Your task to perform on an android device: turn off smart reply in the gmail app Image 0: 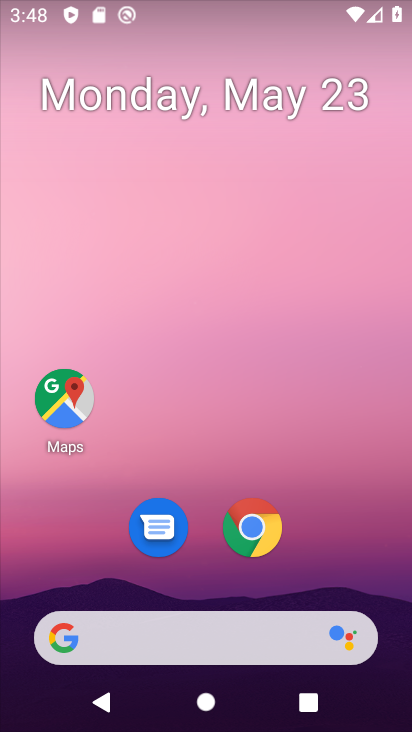
Step 0: press home button
Your task to perform on an android device: turn off smart reply in the gmail app Image 1: 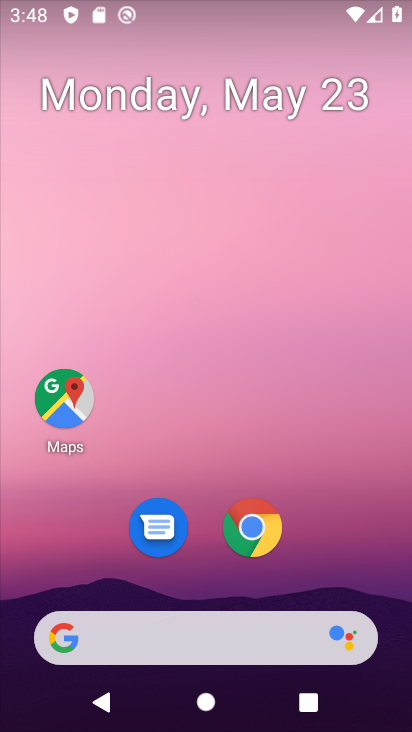
Step 1: drag from (334, 420) to (254, 169)
Your task to perform on an android device: turn off smart reply in the gmail app Image 2: 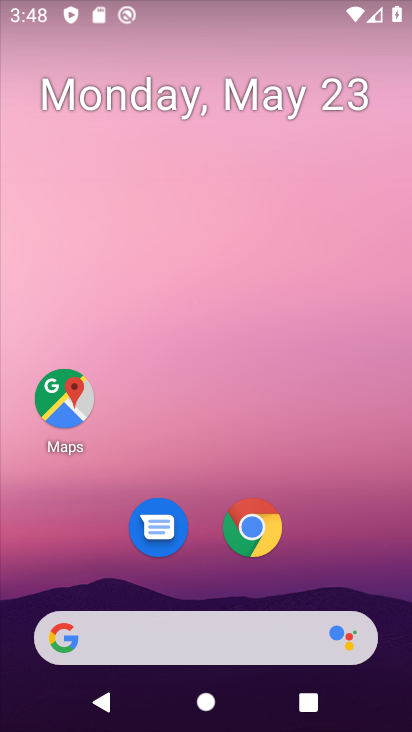
Step 2: drag from (354, 512) to (233, 136)
Your task to perform on an android device: turn off smart reply in the gmail app Image 3: 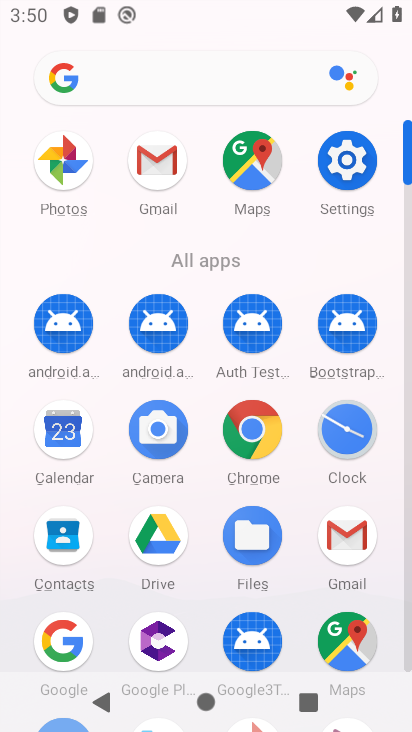
Step 3: click (162, 195)
Your task to perform on an android device: turn off smart reply in the gmail app Image 4: 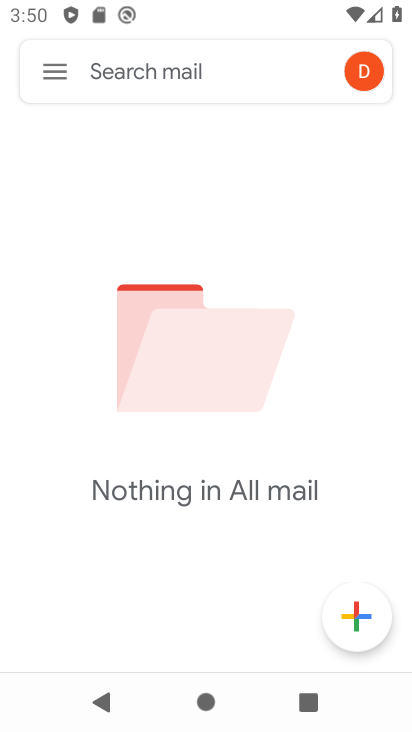
Step 4: click (71, 72)
Your task to perform on an android device: turn off smart reply in the gmail app Image 5: 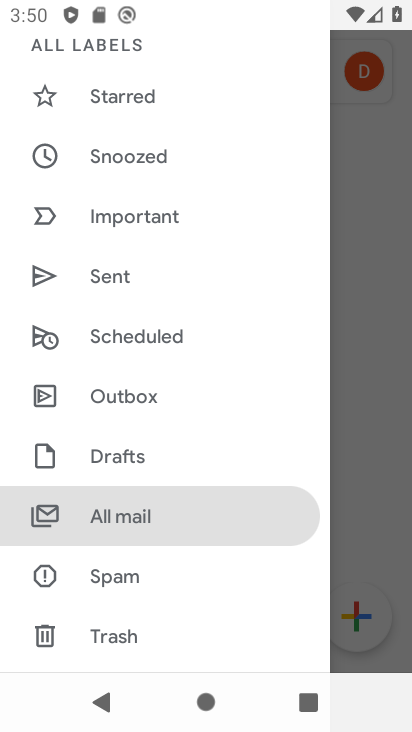
Step 5: drag from (134, 615) to (120, 228)
Your task to perform on an android device: turn off smart reply in the gmail app Image 6: 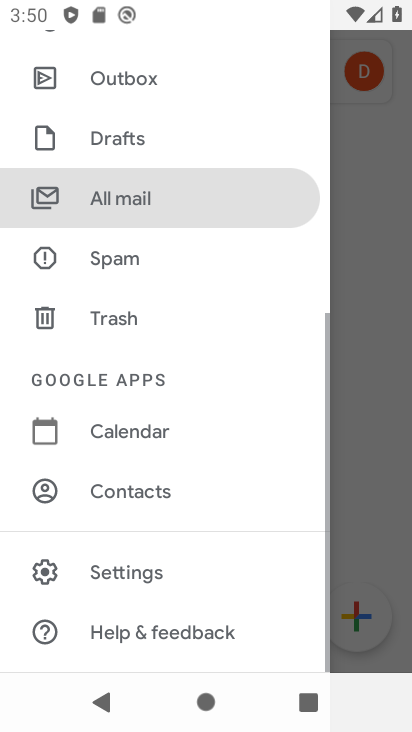
Step 6: click (159, 578)
Your task to perform on an android device: turn off smart reply in the gmail app Image 7: 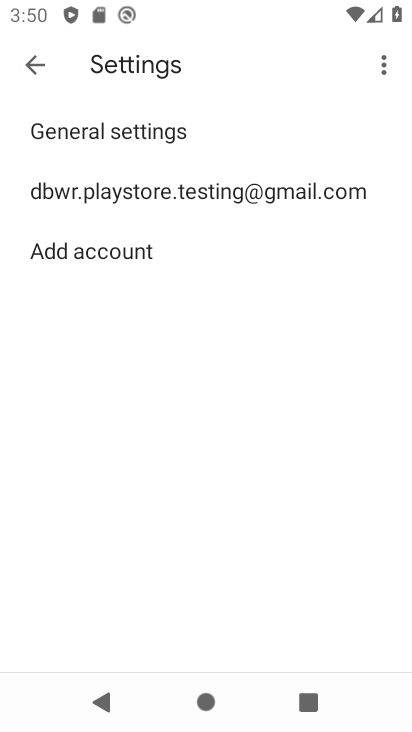
Step 7: click (316, 196)
Your task to perform on an android device: turn off smart reply in the gmail app Image 8: 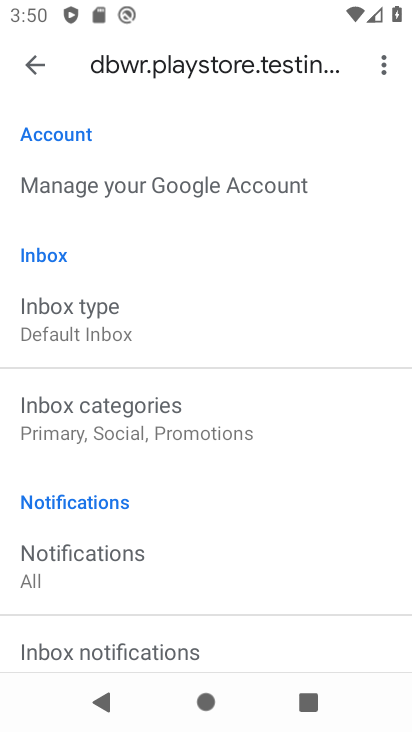
Step 8: drag from (252, 502) to (155, 162)
Your task to perform on an android device: turn off smart reply in the gmail app Image 9: 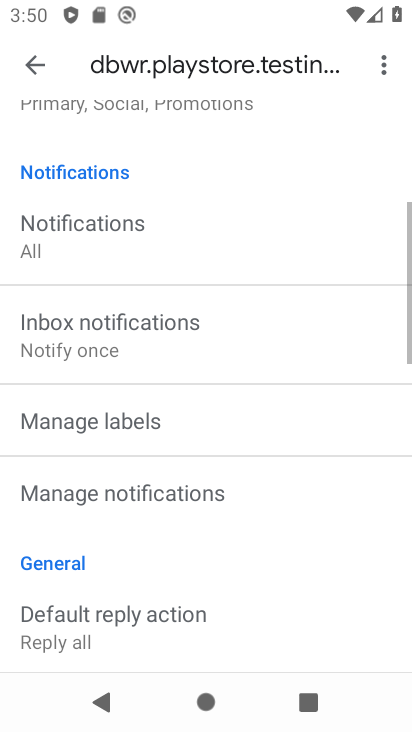
Step 9: drag from (226, 560) to (166, 262)
Your task to perform on an android device: turn off smart reply in the gmail app Image 10: 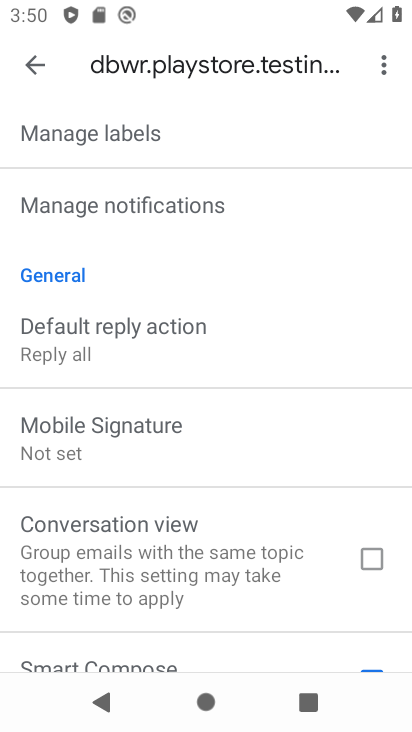
Step 10: drag from (303, 587) to (264, 235)
Your task to perform on an android device: turn off smart reply in the gmail app Image 11: 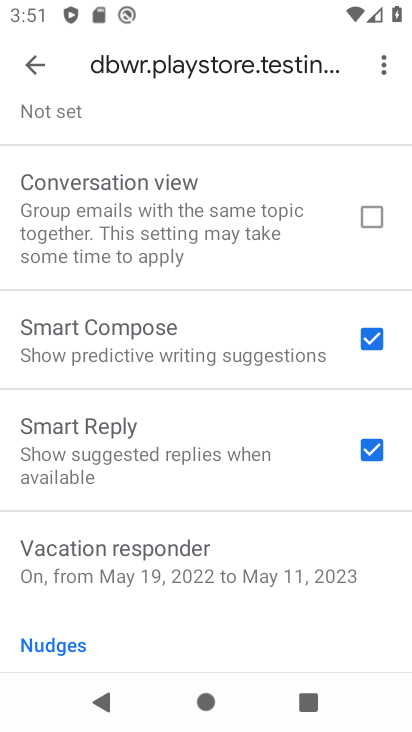
Step 11: click (195, 438)
Your task to perform on an android device: turn off smart reply in the gmail app Image 12: 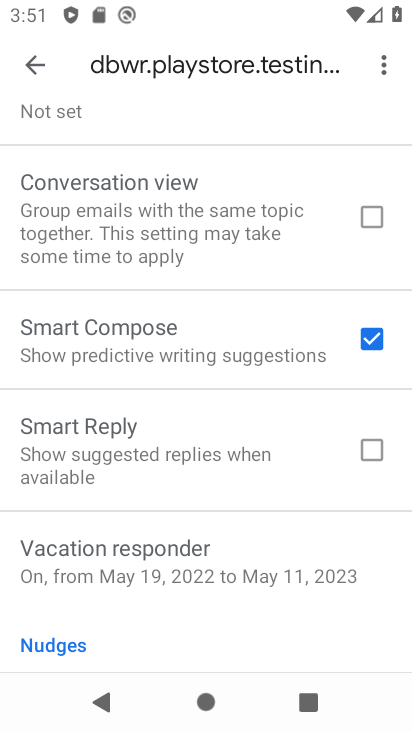
Step 12: task complete